Your task to perform on an android device: Do I have any events this weekend? Image 0: 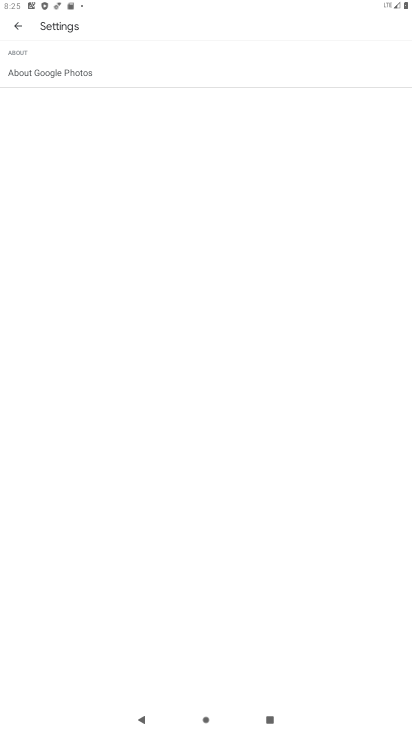
Step 0: press home button
Your task to perform on an android device: Do I have any events this weekend? Image 1: 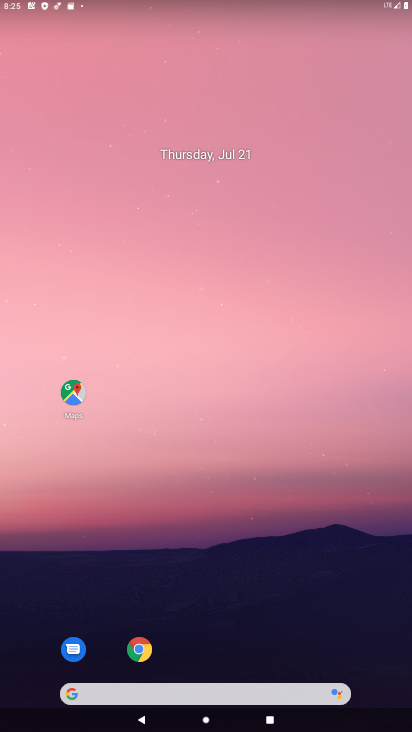
Step 1: drag from (210, 498) to (249, 64)
Your task to perform on an android device: Do I have any events this weekend? Image 2: 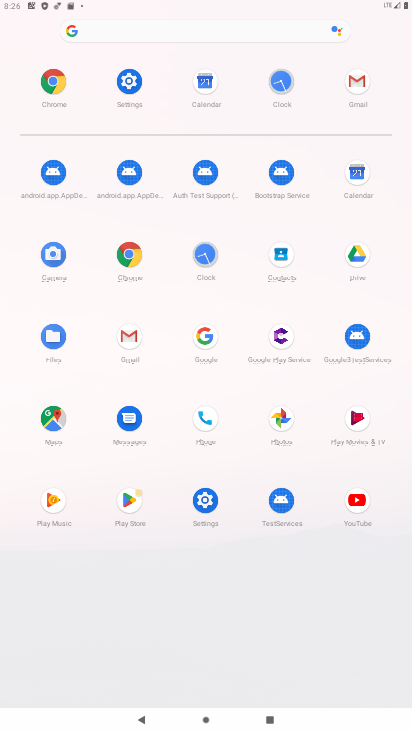
Step 2: click (362, 181)
Your task to perform on an android device: Do I have any events this weekend? Image 3: 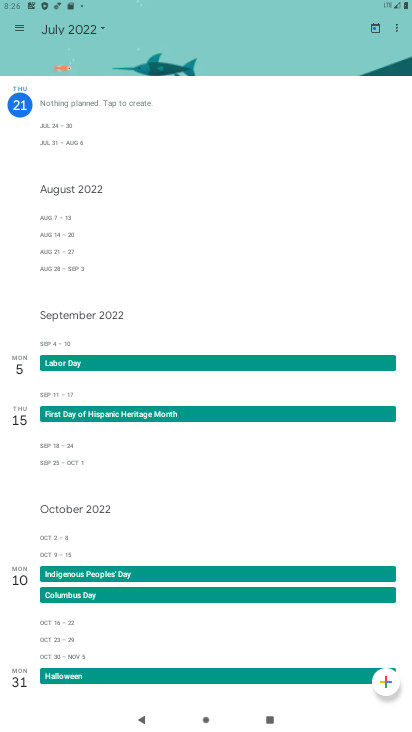
Step 3: click (19, 24)
Your task to perform on an android device: Do I have any events this weekend? Image 4: 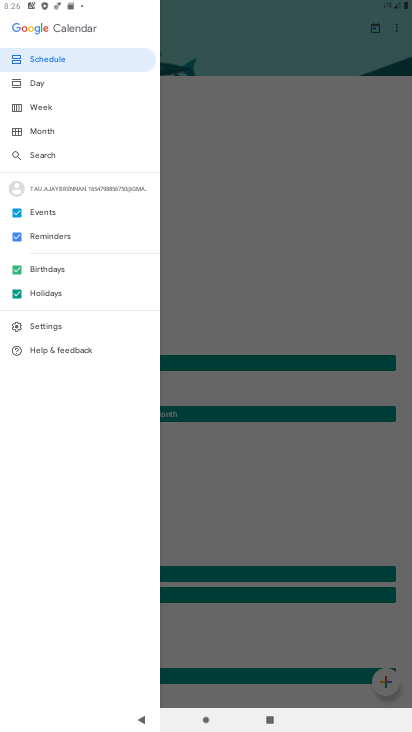
Step 4: click (47, 238)
Your task to perform on an android device: Do I have any events this weekend? Image 5: 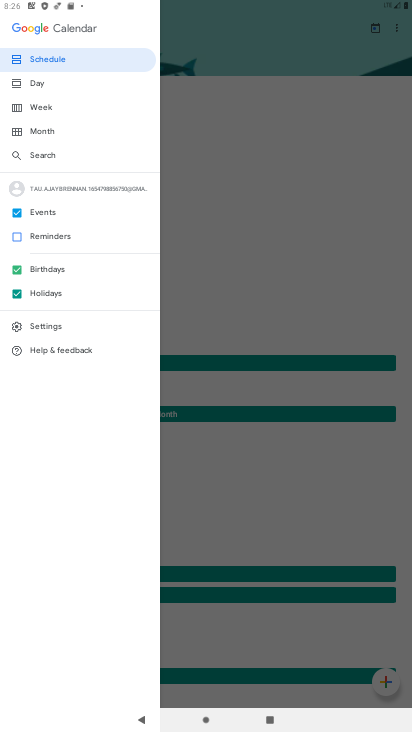
Step 5: click (36, 267)
Your task to perform on an android device: Do I have any events this weekend? Image 6: 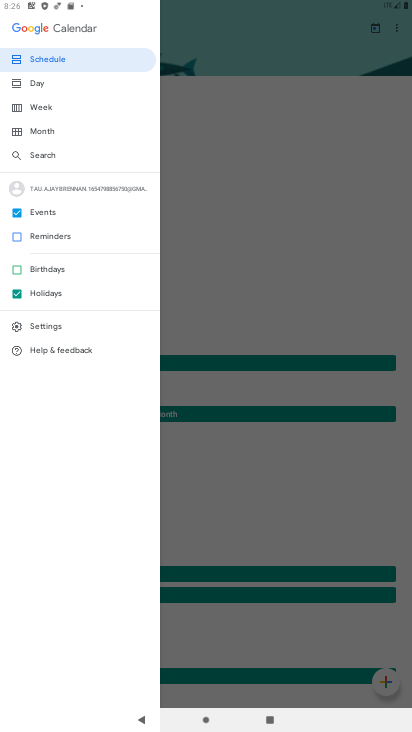
Step 6: click (30, 293)
Your task to perform on an android device: Do I have any events this weekend? Image 7: 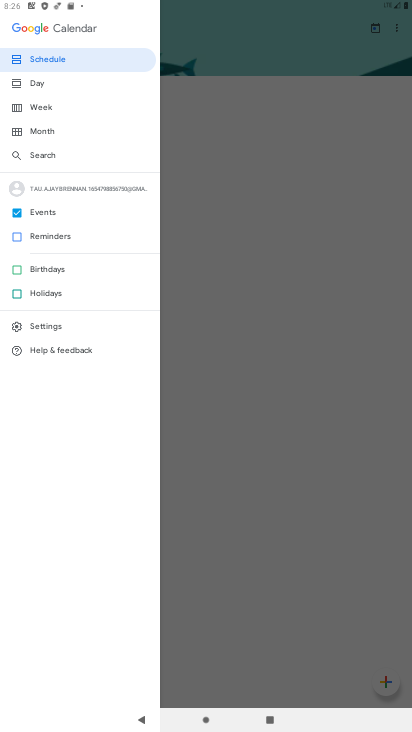
Step 7: click (43, 102)
Your task to perform on an android device: Do I have any events this weekend? Image 8: 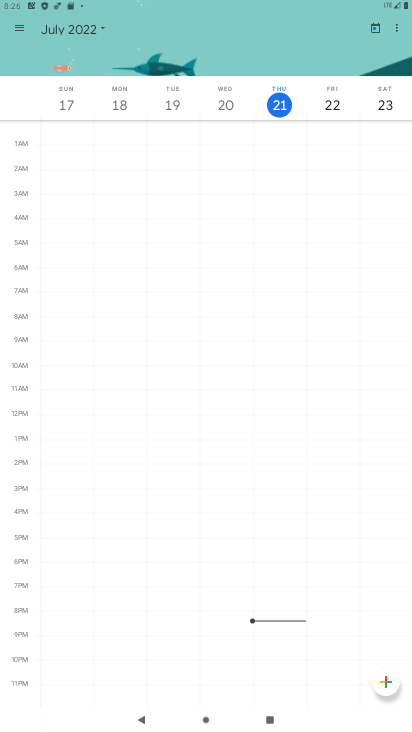
Step 8: task complete